Your task to perform on an android device: remove spam from my inbox in the gmail app Image 0: 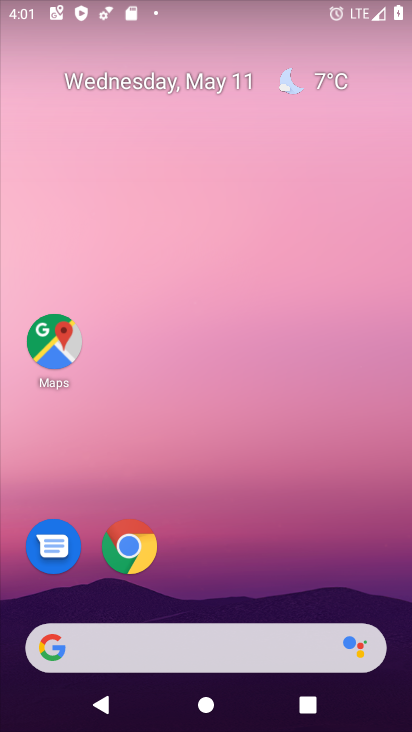
Step 0: drag from (226, 625) to (274, 4)
Your task to perform on an android device: remove spam from my inbox in the gmail app Image 1: 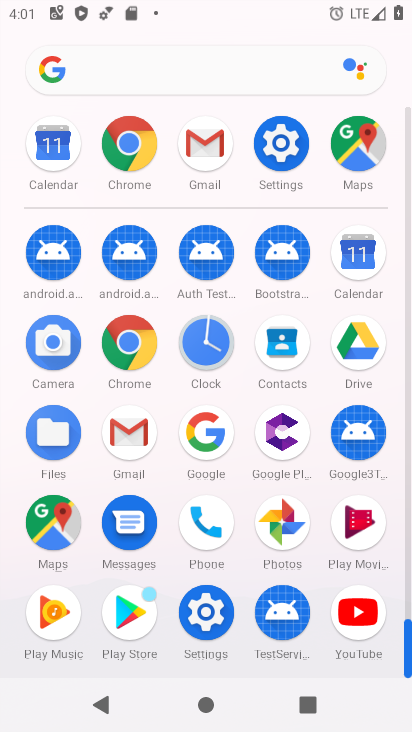
Step 1: click (154, 449)
Your task to perform on an android device: remove spam from my inbox in the gmail app Image 2: 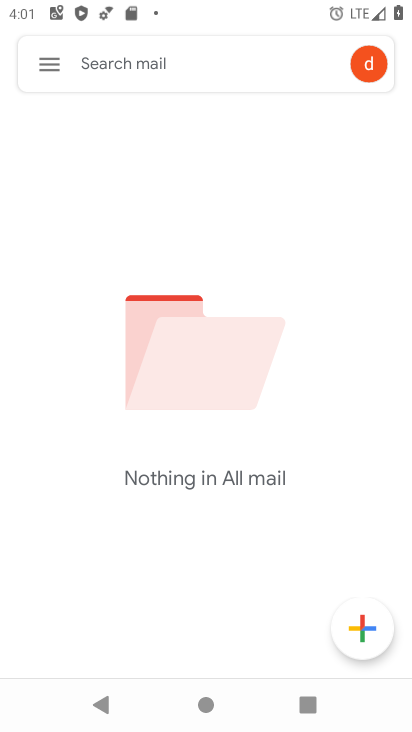
Step 2: click (55, 57)
Your task to perform on an android device: remove spam from my inbox in the gmail app Image 3: 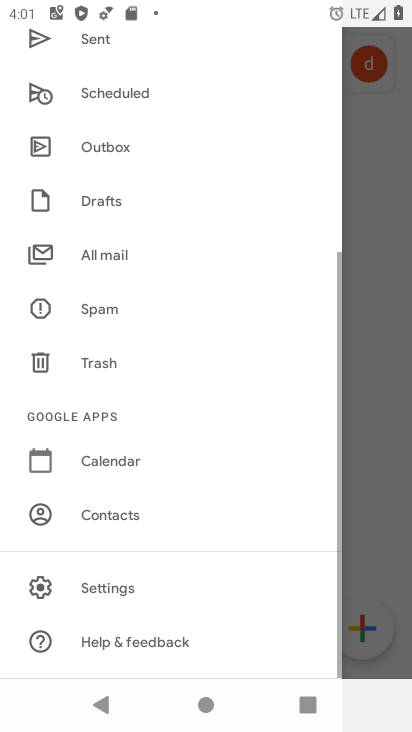
Step 3: drag from (247, 203) to (231, 727)
Your task to perform on an android device: remove spam from my inbox in the gmail app Image 4: 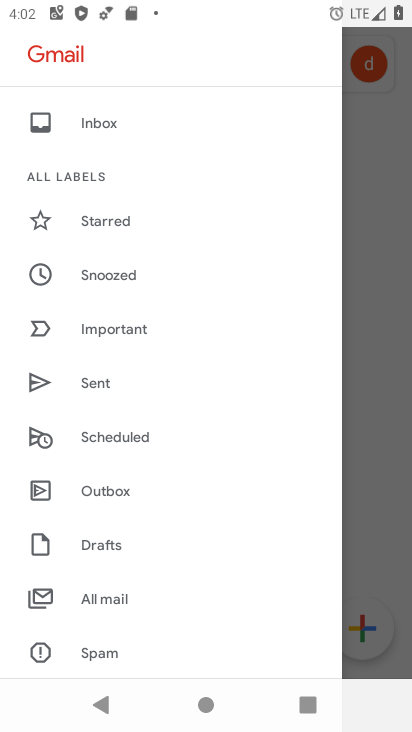
Step 4: click (127, 653)
Your task to perform on an android device: remove spam from my inbox in the gmail app Image 5: 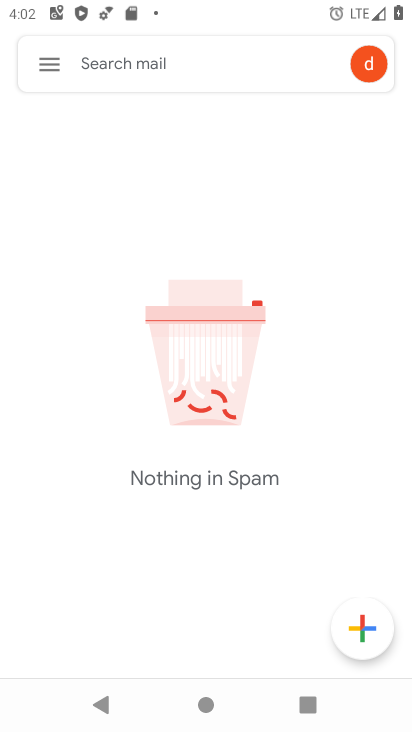
Step 5: task complete